Your task to perform on an android device: find photos in the google photos app Image 0: 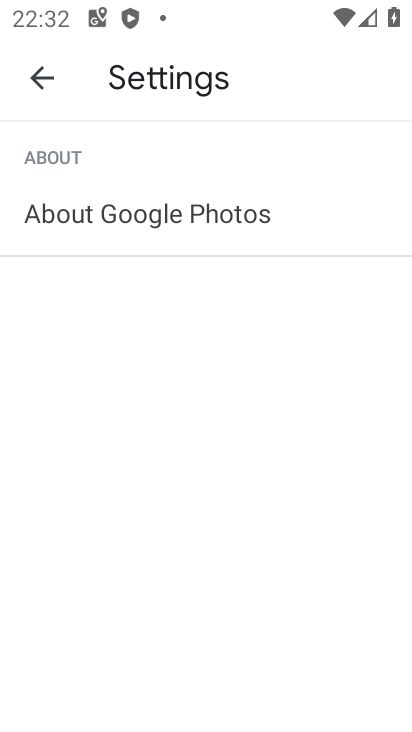
Step 0: press home button
Your task to perform on an android device: find photos in the google photos app Image 1: 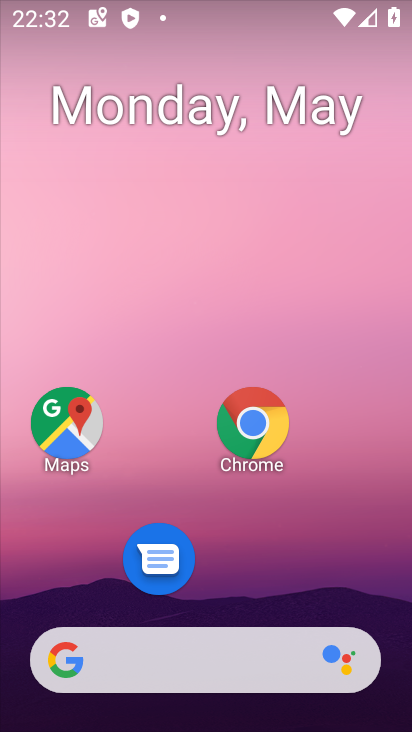
Step 1: drag from (283, 597) to (280, 160)
Your task to perform on an android device: find photos in the google photos app Image 2: 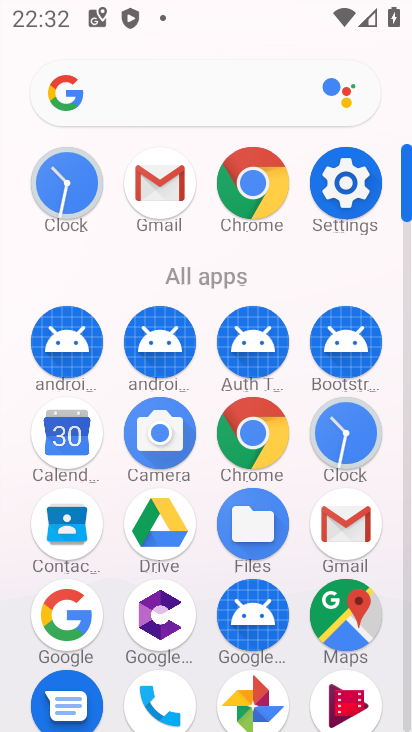
Step 2: click (248, 682)
Your task to perform on an android device: find photos in the google photos app Image 3: 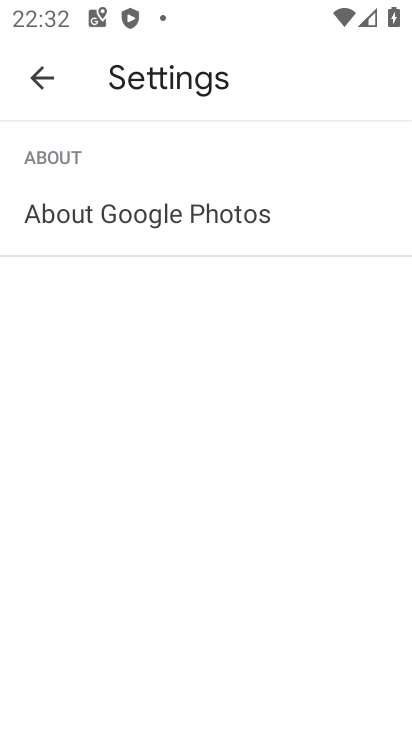
Step 3: click (47, 82)
Your task to perform on an android device: find photos in the google photos app Image 4: 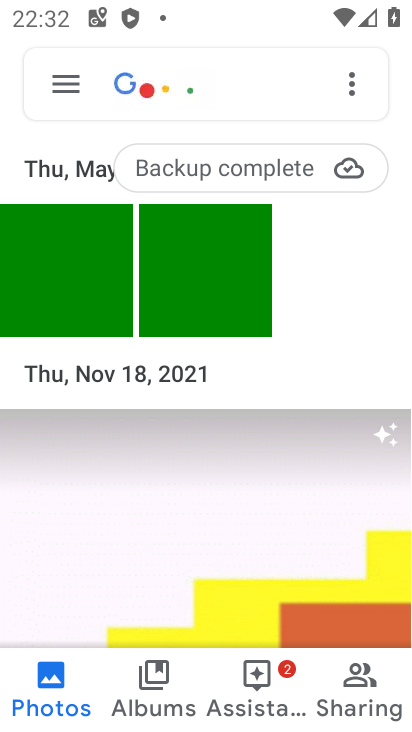
Step 4: task complete